Your task to perform on an android device: What time is it? Image 0: 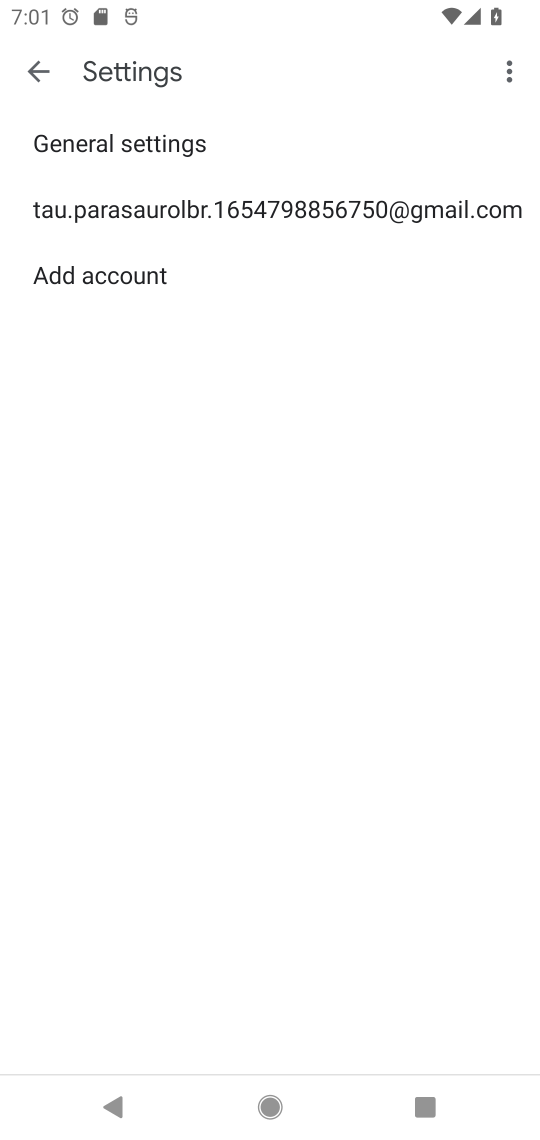
Step 0: press home button
Your task to perform on an android device: What time is it? Image 1: 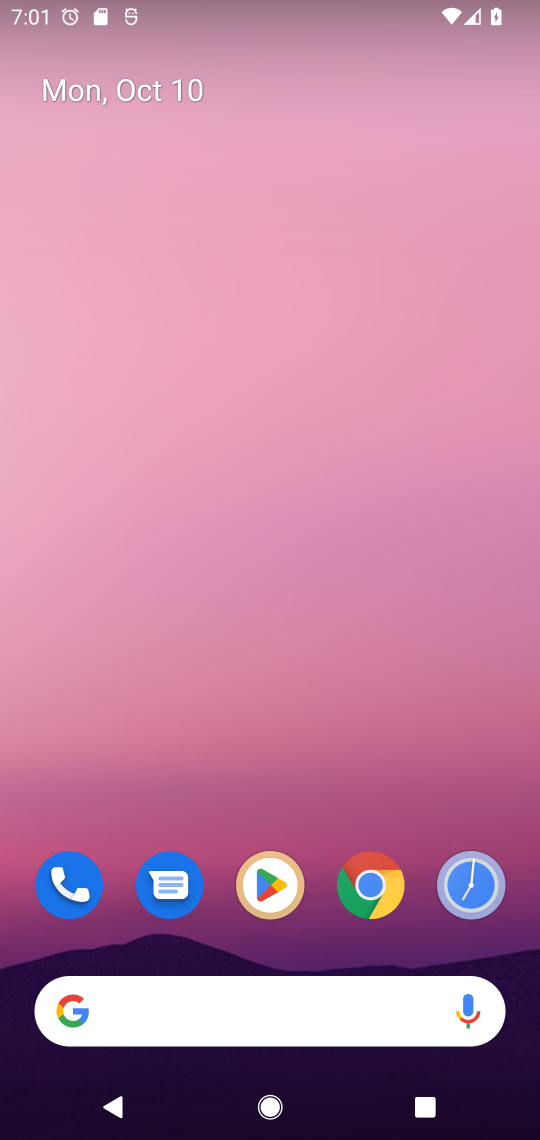
Step 1: click (479, 898)
Your task to perform on an android device: What time is it? Image 2: 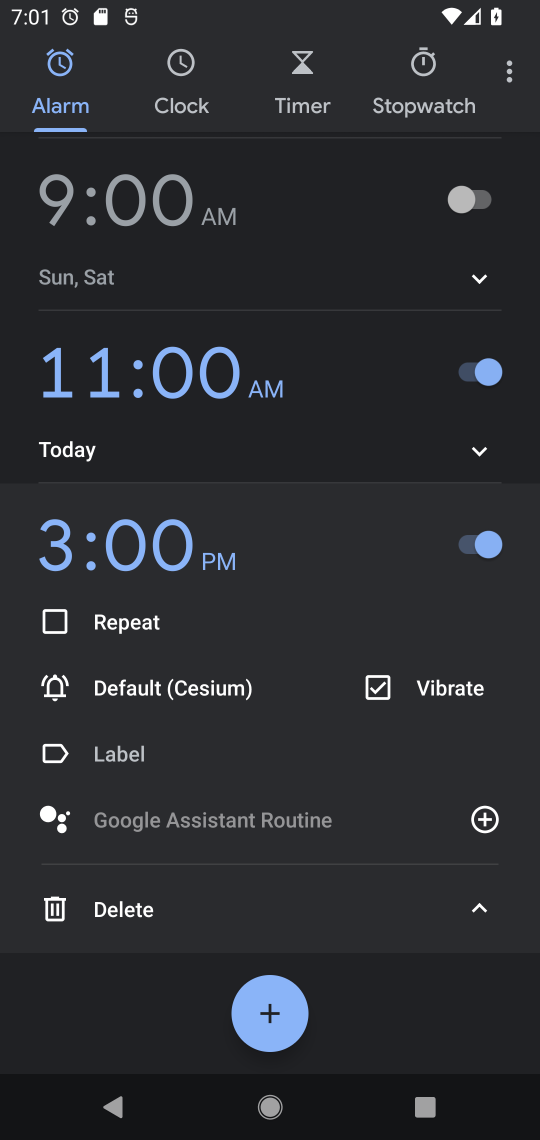
Step 2: click (173, 77)
Your task to perform on an android device: What time is it? Image 3: 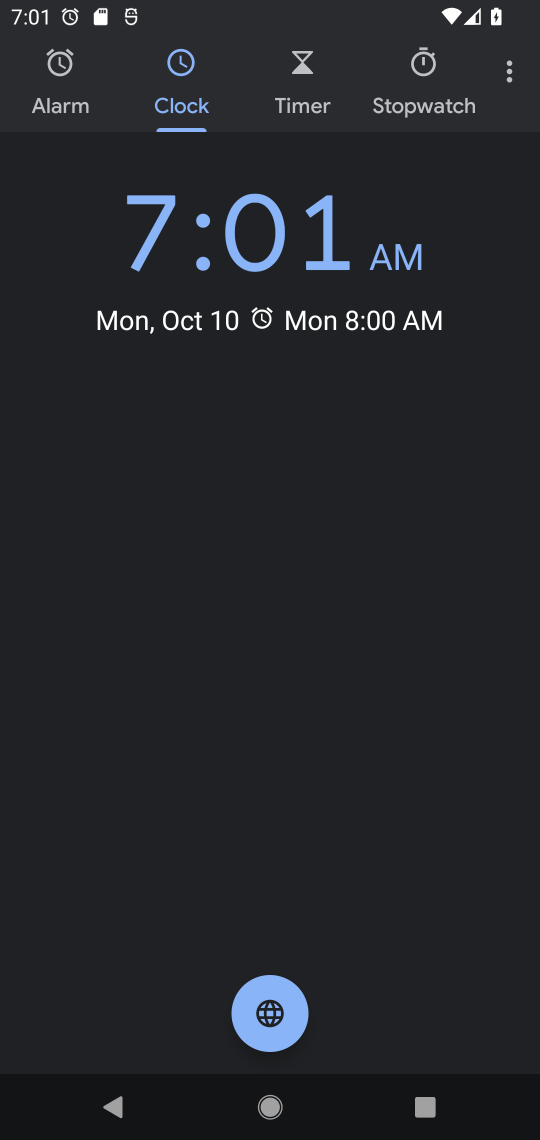
Step 3: task complete